Your task to perform on an android device: What's on my calendar today? Image 0: 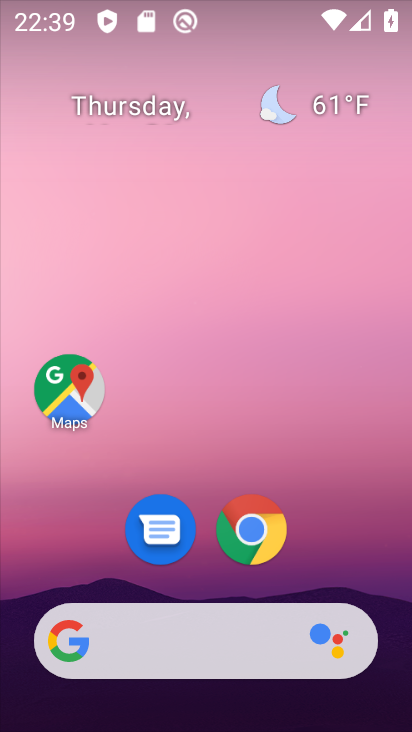
Step 0: drag from (369, 577) to (309, 185)
Your task to perform on an android device: What's on my calendar today? Image 1: 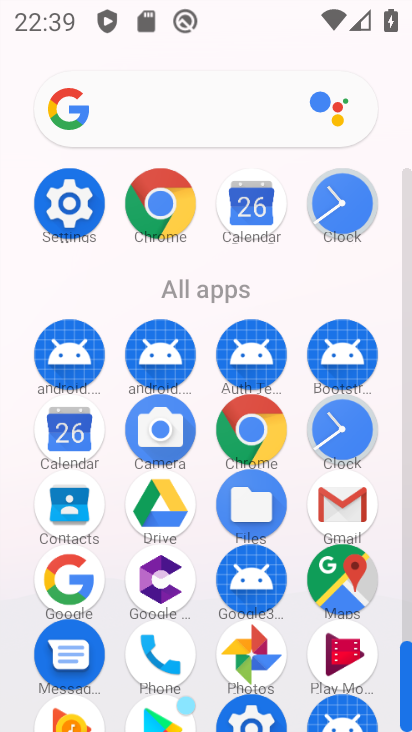
Step 1: click (247, 214)
Your task to perform on an android device: What's on my calendar today? Image 2: 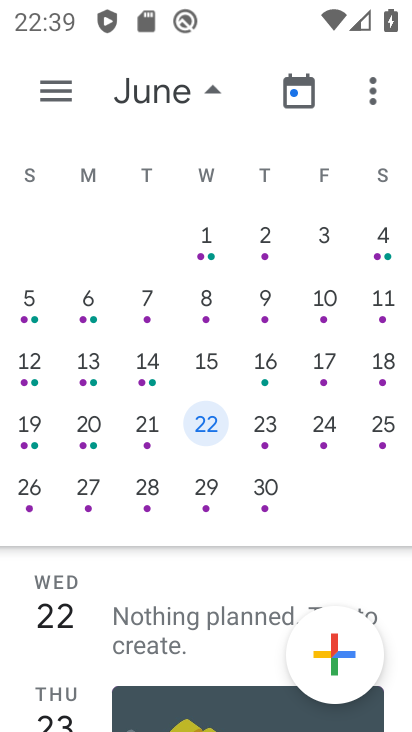
Step 2: task complete